Your task to perform on an android device: toggle pop-ups in chrome Image 0: 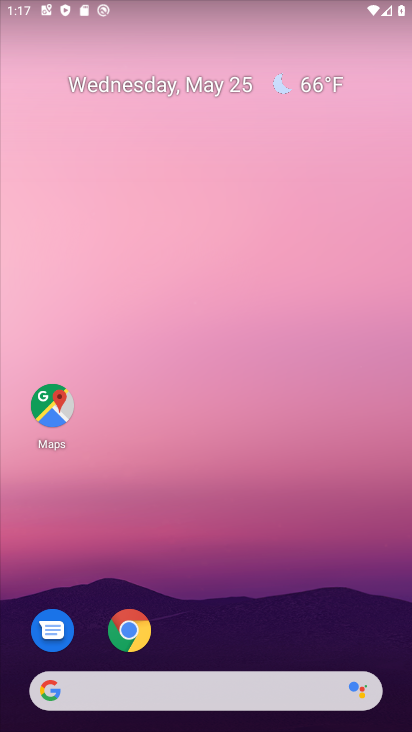
Step 0: press home button
Your task to perform on an android device: toggle pop-ups in chrome Image 1: 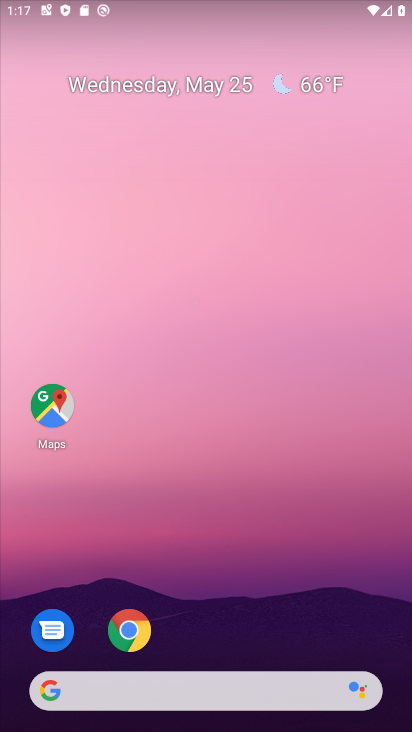
Step 1: click (125, 621)
Your task to perform on an android device: toggle pop-ups in chrome Image 2: 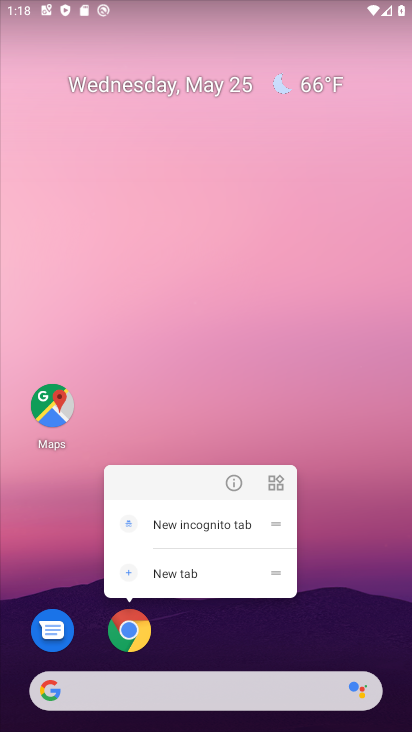
Step 2: click (126, 621)
Your task to perform on an android device: toggle pop-ups in chrome Image 3: 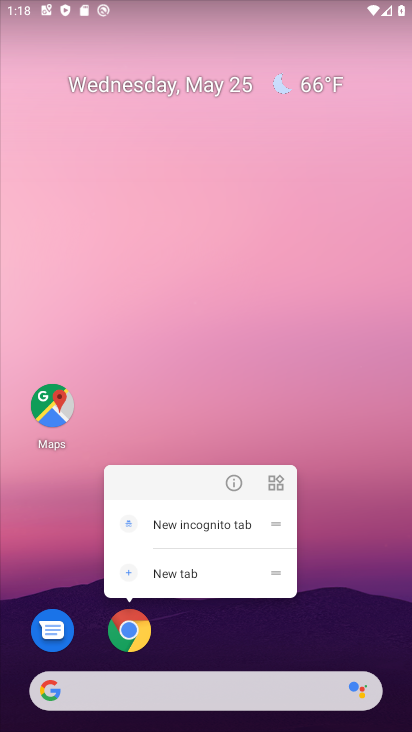
Step 3: click (124, 628)
Your task to perform on an android device: toggle pop-ups in chrome Image 4: 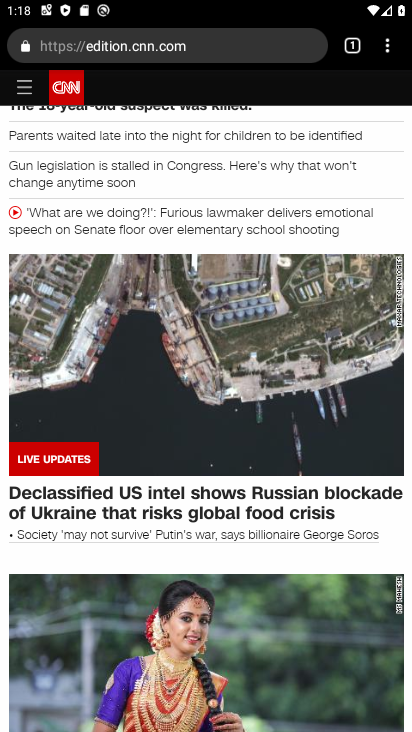
Step 4: drag from (213, 611) to (212, 188)
Your task to perform on an android device: toggle pop-ups in chrome Image 5: 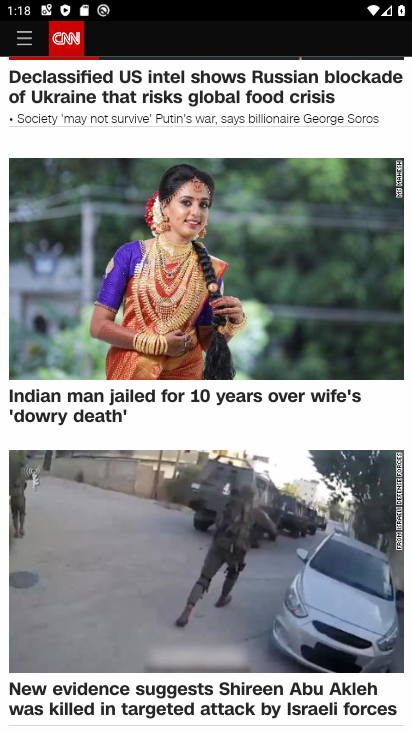
Step 5: drag from (292, 151) to (282, 630)
Your task to perform on an android device: toggle pop-ups in chrome Image 6: 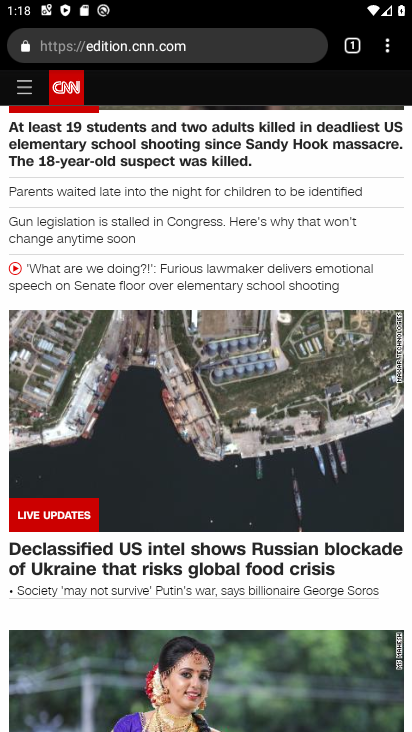
Step 6: click (385, 45)
Your task to perform on an android device: toggle pop-ups in chrome Image 7: 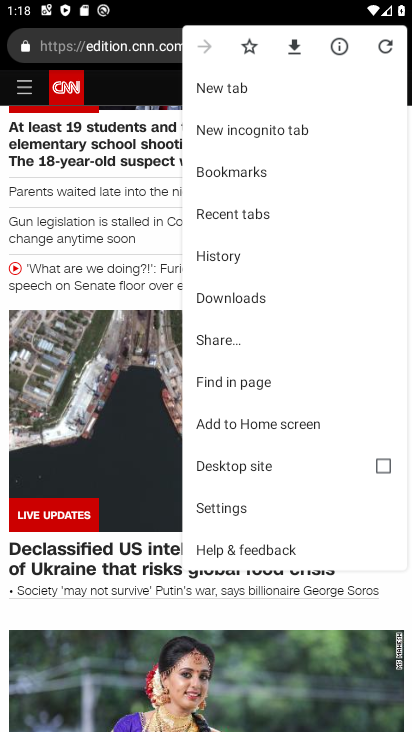
Step 7: click (266, 506)
Your task to perform on an android device: toggle pop-ups in chrome Image 8: 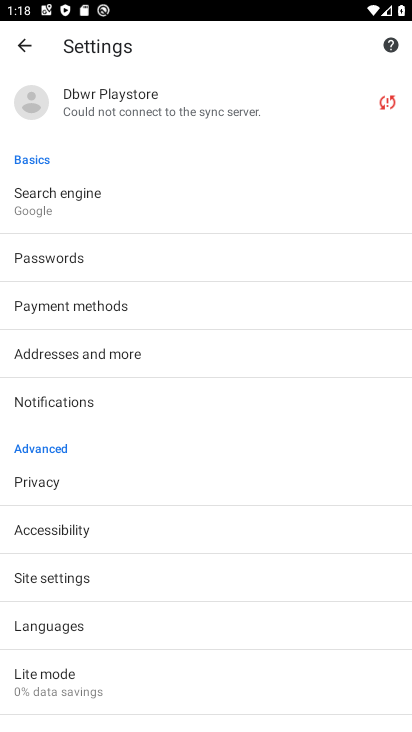
Step 8: click (111, 577)
Your task to perform on an android device: toggle pop-ups in chrome Image 9: 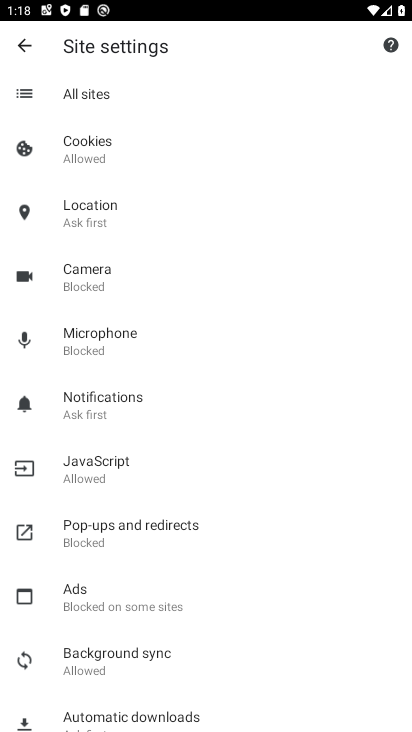
Step 9: click (167, 532)
Your task to perform on an android device: toggle pop-ups in chrome Image 10: 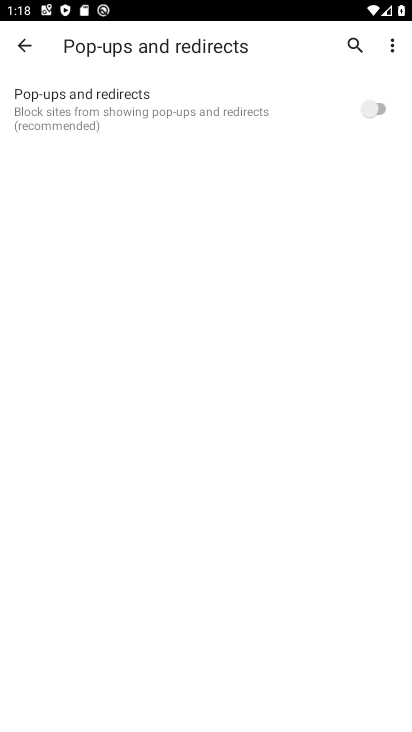
Step 10: click (383, 107)
Your task to perform on an android device: toggle pop-ups in chrome Image 11: 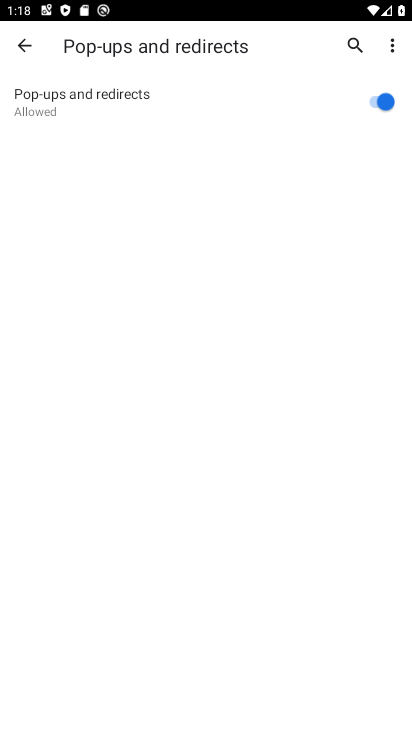
Step 11: task complete